Your task to perform on an android device: turn off wifi Image 0: 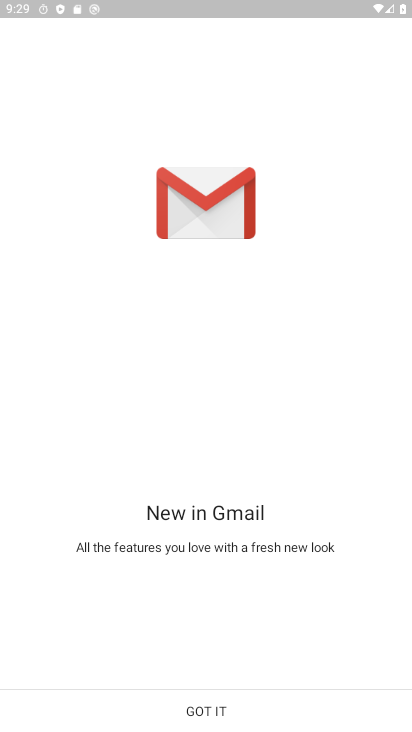
Step 0: press home button
Your task to perform on an android device: turn off wifi Image 1: 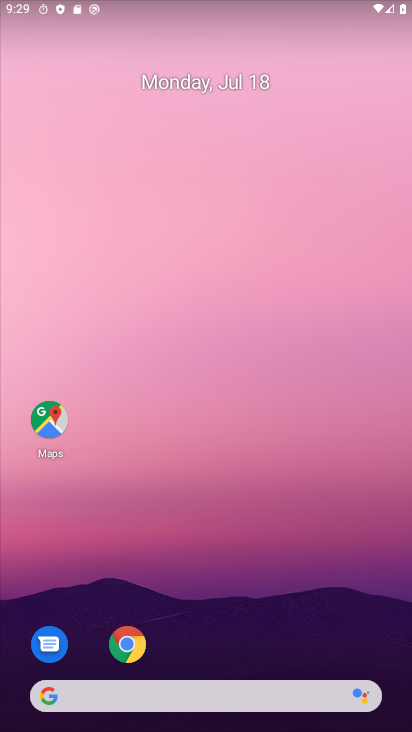
Step 1: press home button
Your task to perform on an android device: turn off wifi Image 2: 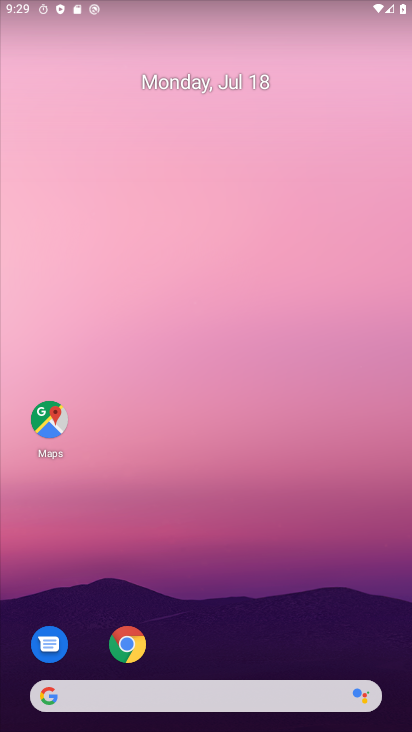
Step 2: drag from (192, 3) to (214, 498)
Your task to perform on an android device: turn off wifi Image 3: 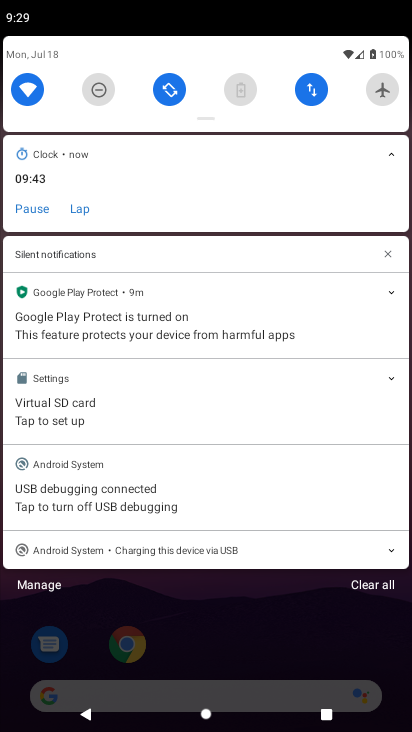
Step 3: click (20, 87)
Your task to perform on an android device: turn off wifi Image 4: 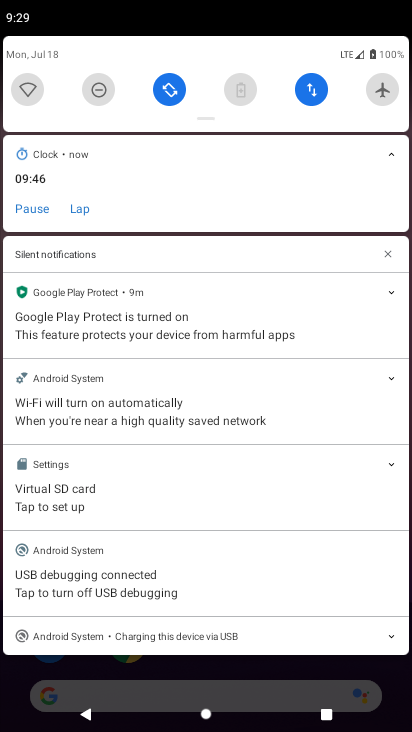
Step 4: task complete